Your task to perform on an android device: Go to Google maps Image 0: 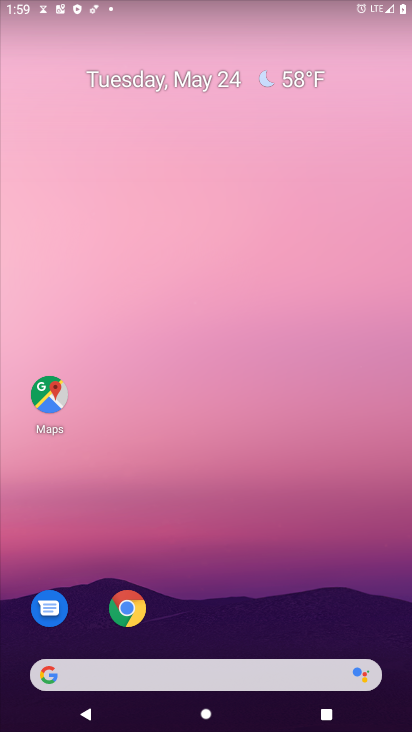
Step 0: press home button
Your task to perform on an android device: Go to Google maps Image 1: 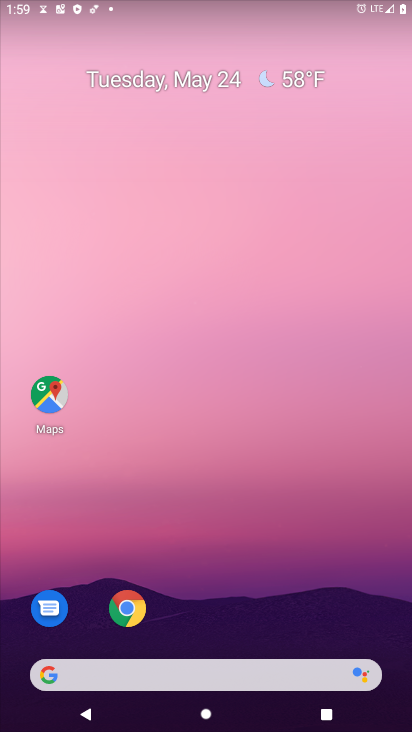
Step 1: drag from (284, 703) to (173, 181)
Your task to perform on an android device: Go to Google maps Image 2: 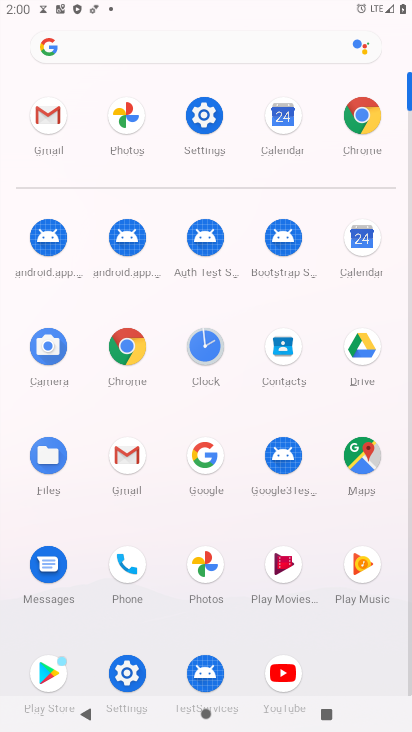
Step 2: click (356, 455)
Your task to perform on an android device: Go to Google maps Image 3: 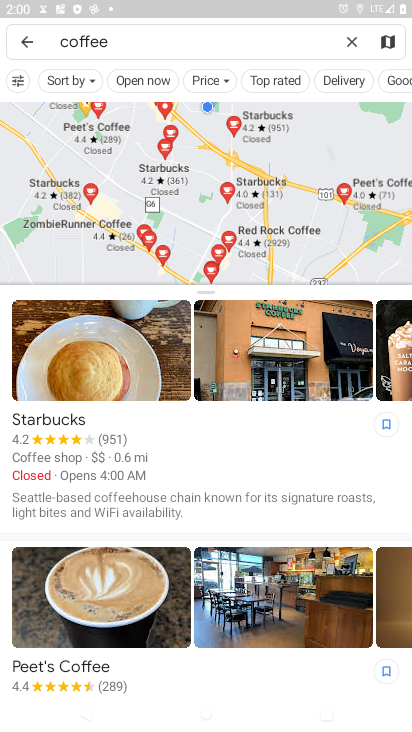
Step 3: click (27, 34)
Your task to perform on an android device: Go to Google maps Image 4: 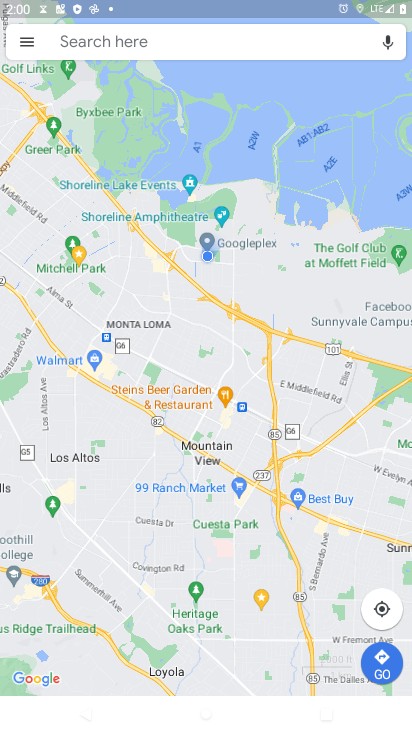
Step 4: click (381, 614)
Your task to perform on an android device: Go to Google maps Image 5: 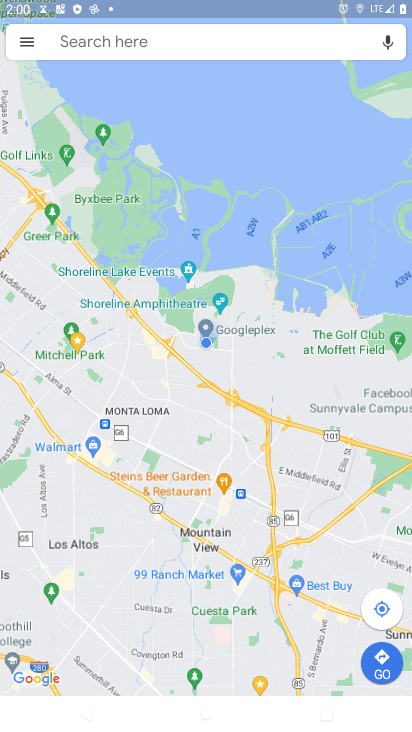
Step 5: task complete